Your task to perform on an android device: Open sound settings Image 0: 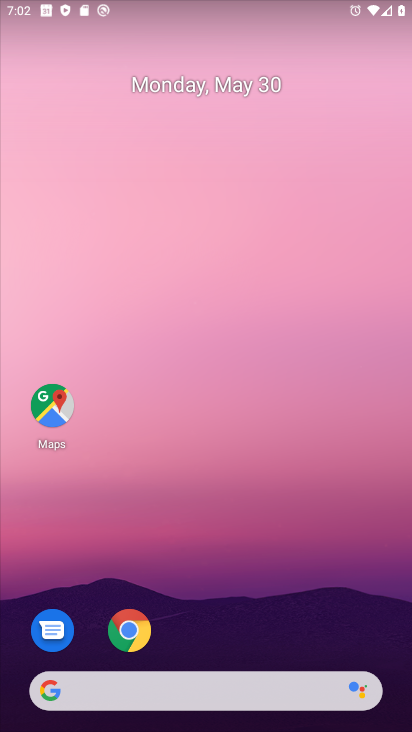
Step 0: drag from (347, 614) to (307, 14)
Your task to perform on an android device: Open sound settings Image 1: 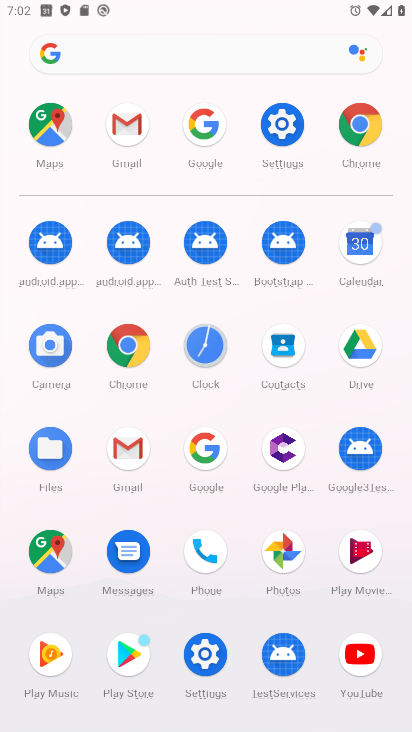
Step 1: click (197, 638)
Your task to perform on an android device: Open sound settings Image 2: 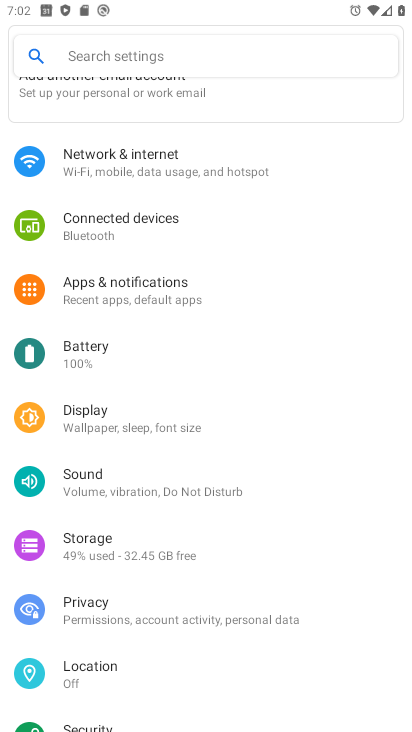
Step 2: click (151, 478)
Your task to perform on an android device: Open sound settings Image 3: 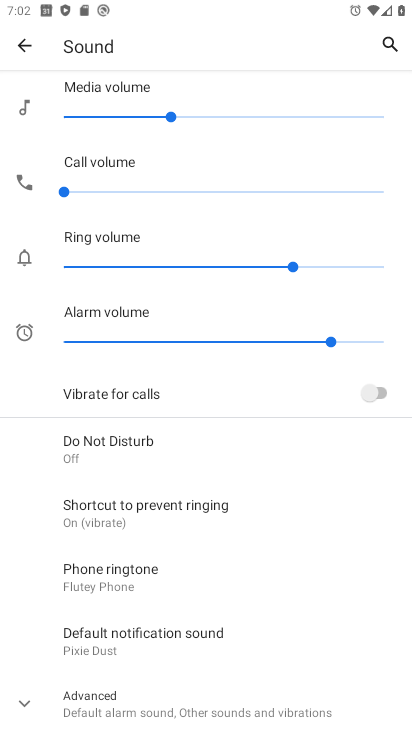
Step 3: task complete